Your task to perform on an android device: delete a single message in the gmail app Image 0: 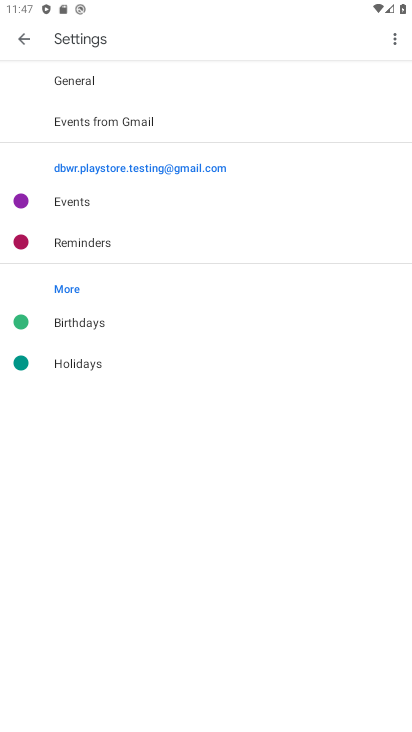
Step 0: press back button
Your task to perform on an android device: delete a single message in the gmail app Image 1: 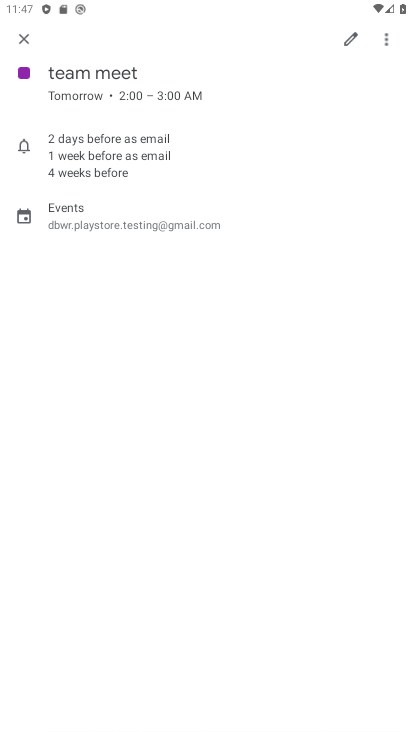
Step 1: click (3, 32)
Your task to perform on an android device: delete a single message in the gmail app Image 2: 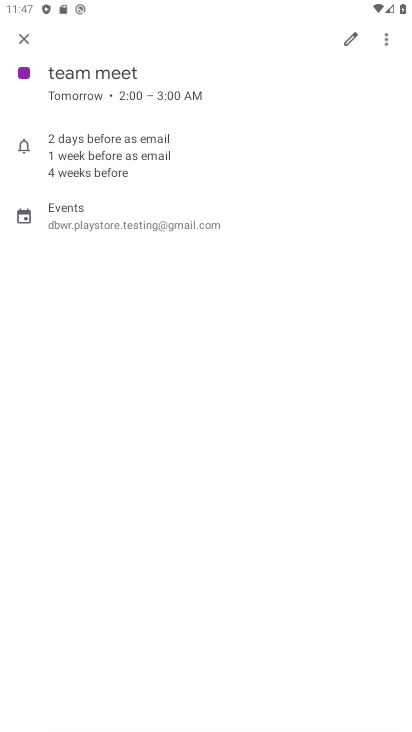
Step 2: click (28, 51)
Your task to perform on an android device: delete a single message in the gmail app Image 3: 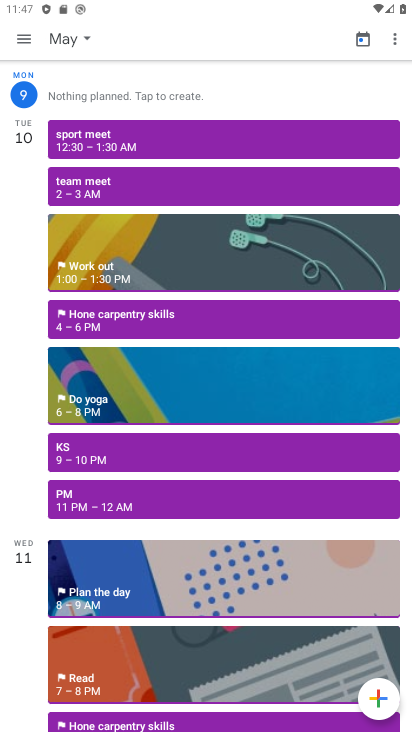
Step 3: press back button
Your task to perform on an android device: delete a single message in the gmail app Image 4: 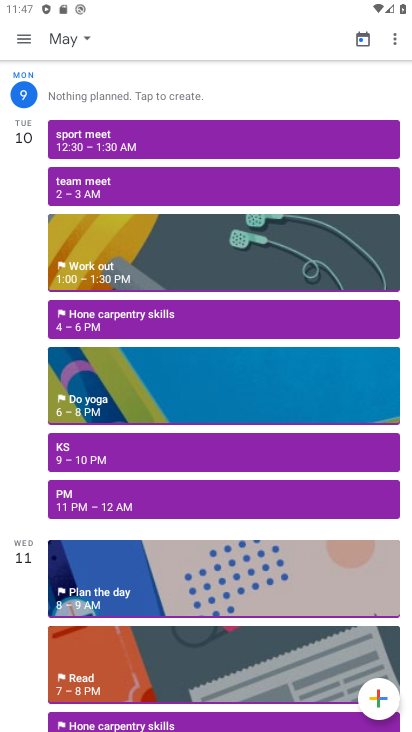
Step 4: press back button
Your task to perform on an android device: delete a single message in the gmail app Image 5: 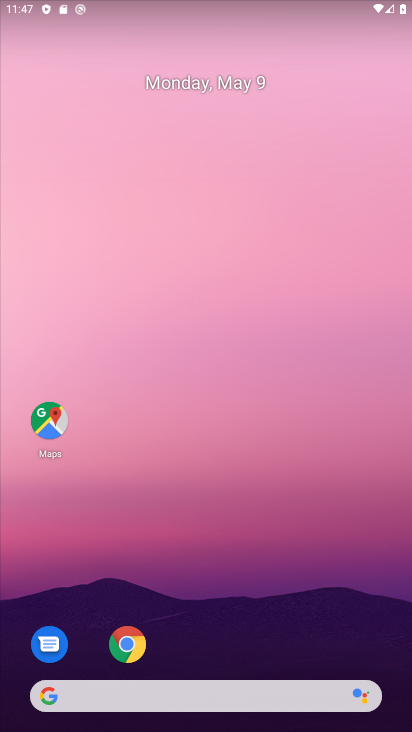
Step 5: drag from (214, 616) to (276, 68)
Your task to perform on an android device: delete a single message in the gmail app Image 6: 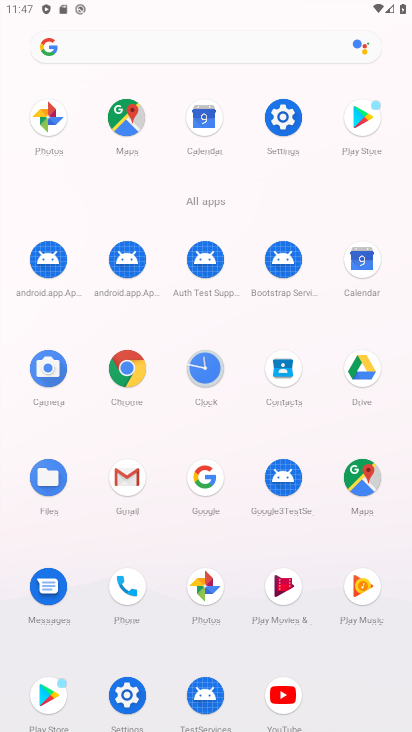
Step 6: click (122, 488)
Your task to perform on an android device: delete a single message in the gmail app Image 7: 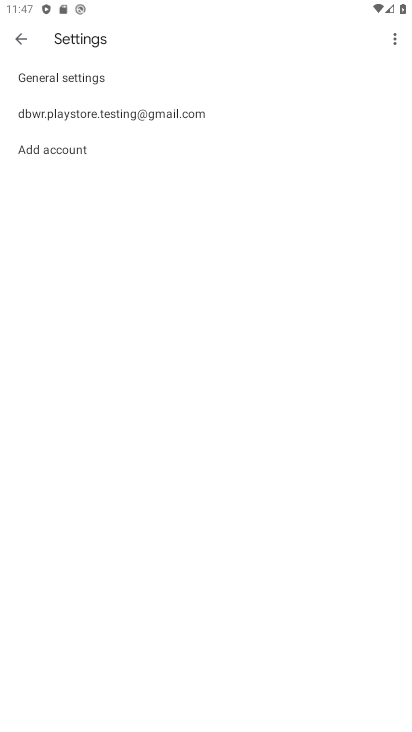
Step 7: click (22, 43)
Your task to perform on an android device: delete a single message in the gmail app Image 8: 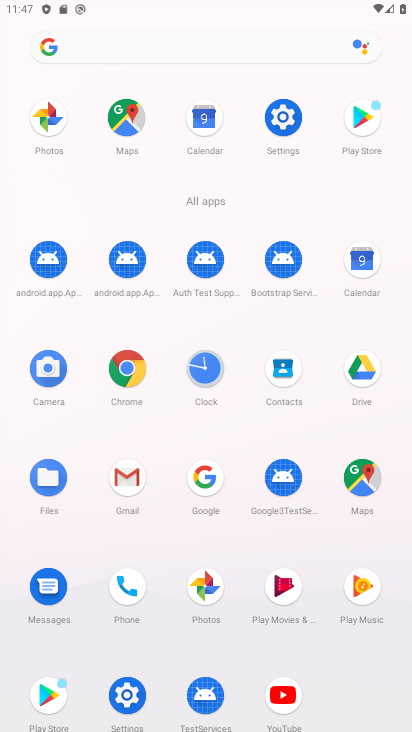
Step 8: click (126, 485)
Your task to perform on an android device: delete a single message in the gmail app Image 9: 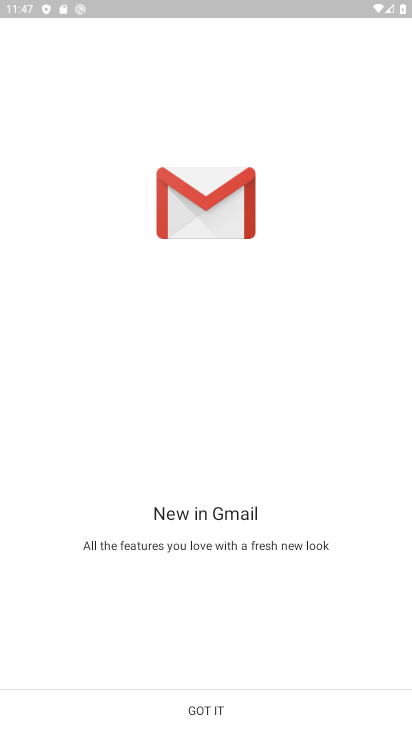
Step 9: click (212, 699)
Your task to perform on an android device: delete a single message in the gmail app Image 10: 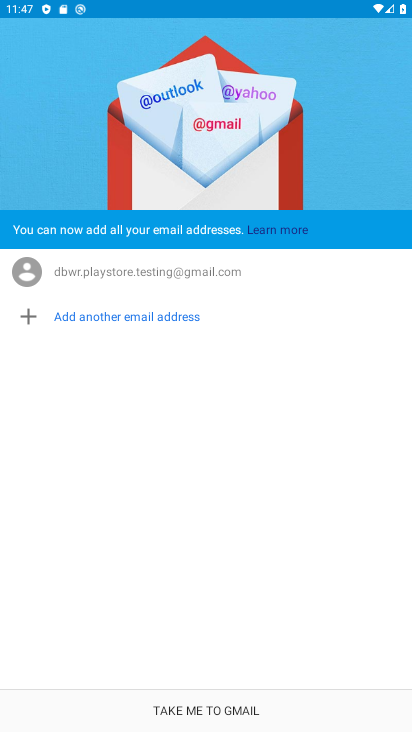
Step 10: click (203, 719)
Your task to perform on an android device: delete a single message in the gmail app Image 11: 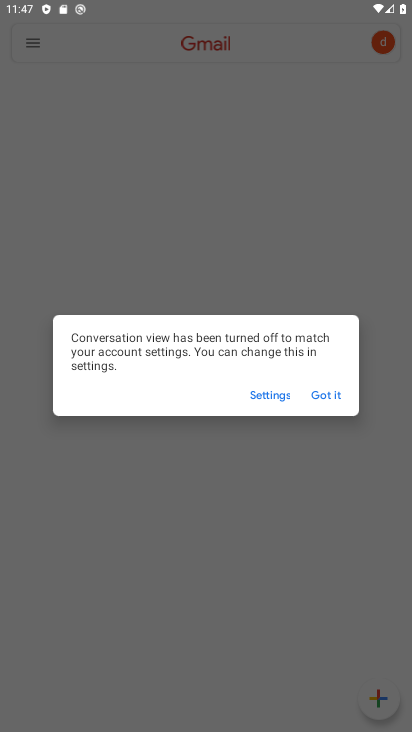
Step 11: click (325, 401)
Your task to perform on an android device: delete a single message in the gmail app Image 12: 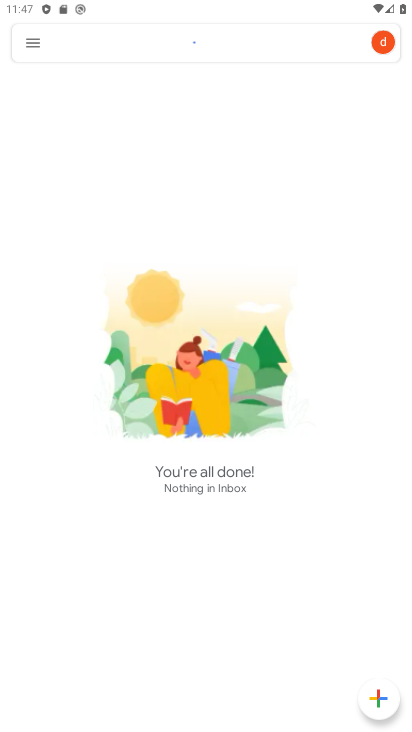
Step 12: click (34, 41)
Your task to perform on an android device: delete a single message in the gmail app Image 13: 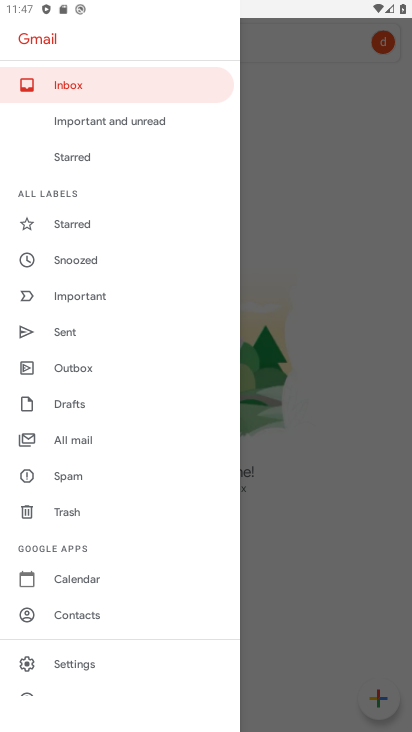
Step 13: click (98, 438)
Your task to perform on an android device: delete a single message in the gmail app Image 14: 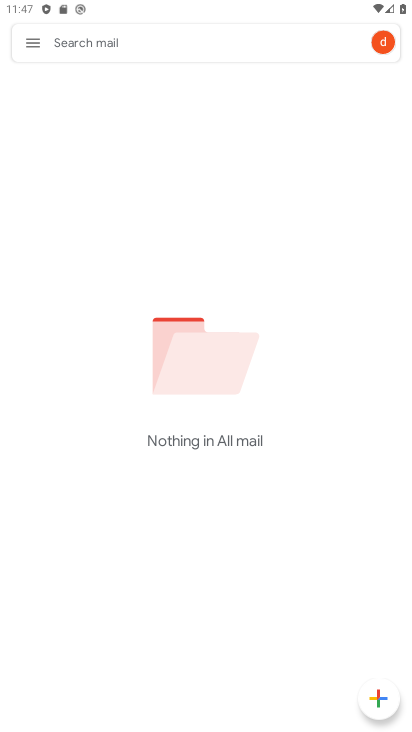
Step 14: task complete